Your task to perform on an android device: Go to sound settings Image 0: 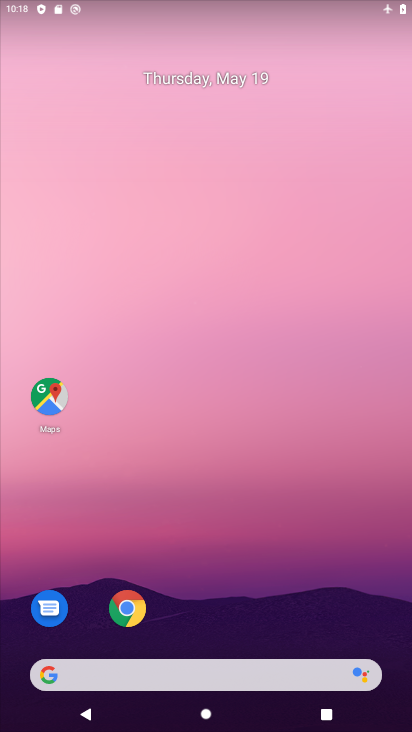
Step 0: drag from (398, 620) to (407, 306)
Your task to perform on an android device: Go to sound settings Image 1: 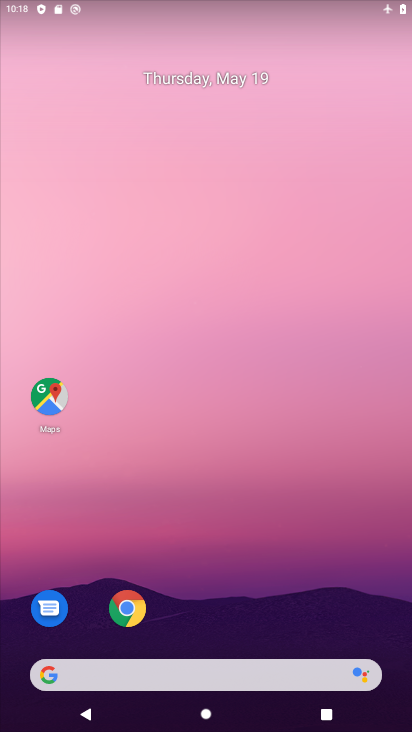
Step 1: drag from (387, 659) to (394, 210)
Your task to perform on an android device: Go to sound settings Image 2: 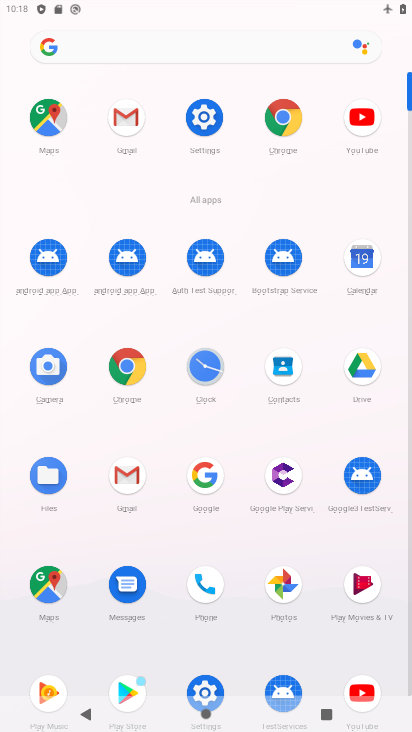
Step 2: click (210, 116)
Your task to perform on an android device: Go to sound settings Image 3: 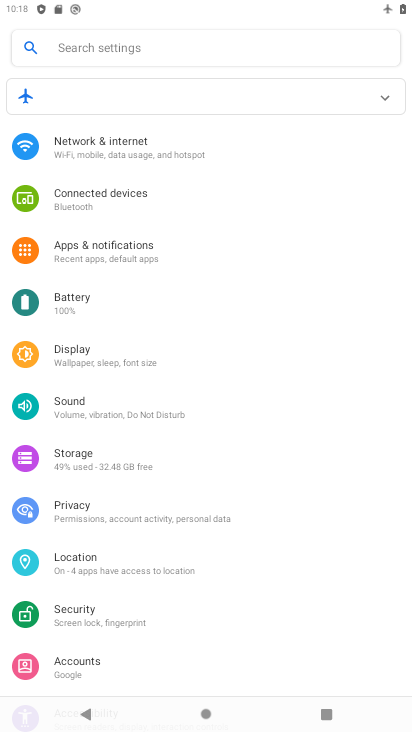
Step 3: drag from (258, 624) to (240, 331)
Your task to perform on an android device: Go to sound settings Image 4: 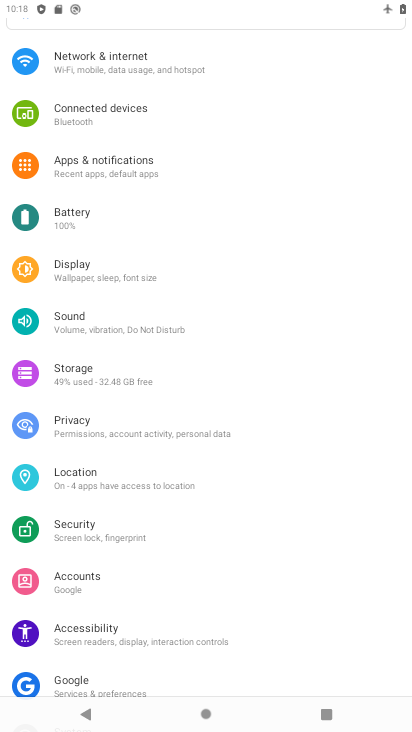
Step 4: drag from (274, 628) to (286, 389)
Your task to perform on an android device: Go to sound settings Image 5: 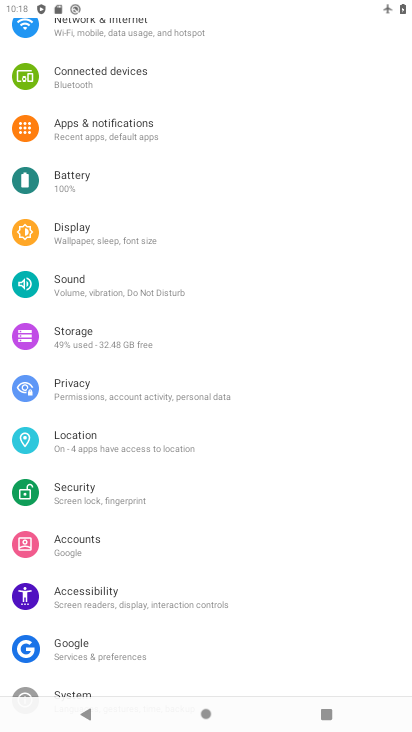
Step 5: drag from (265, 617) to (307, 404)
Your task to perform on an android device: Go to sound settings Image 6: 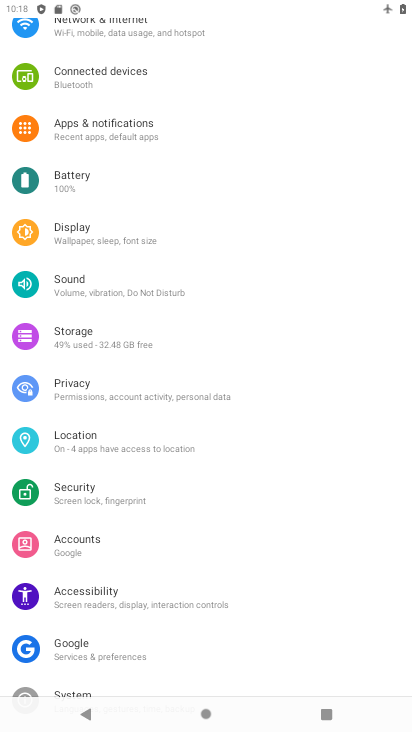
Step 6: drag from (279, 622) to (263, 371)
Your task to perform on an android device: Go to sound settings Image 7: 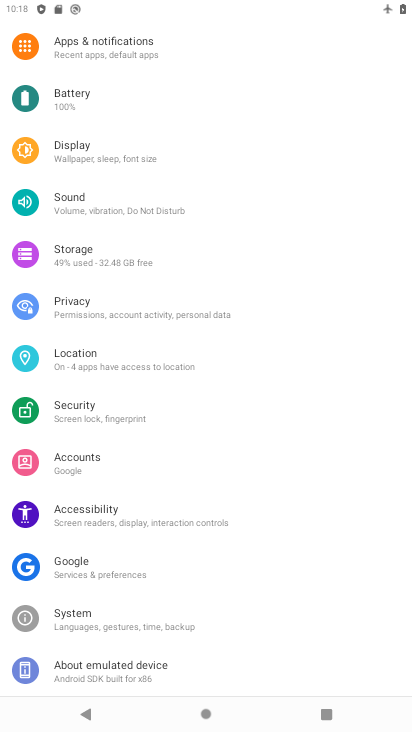
Step 7: click (81, 197)
Your task to perform on an android device: Go to sound settings Image 8: 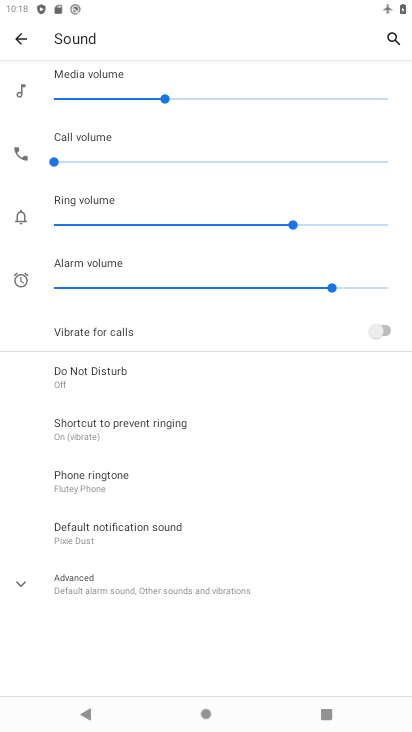
Step 8: task complete